Your task to perform on an android device: toggle pop-ups in chrome Image 0: 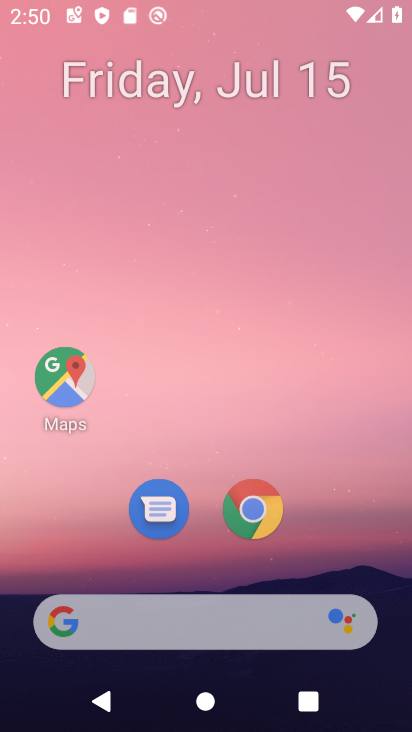
Step 0: press home button
Your task to perform on an android device: toggle pop-ups in chrome Image 1: 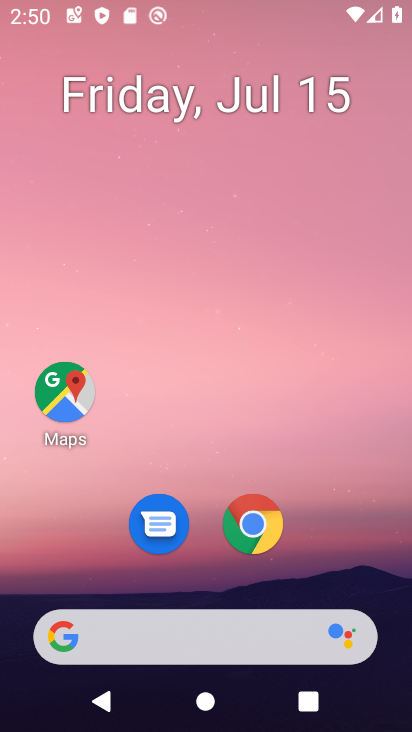
Step 1: press home button
Your task to perform on an android device: toggle pop-ups in chrome Image 2: 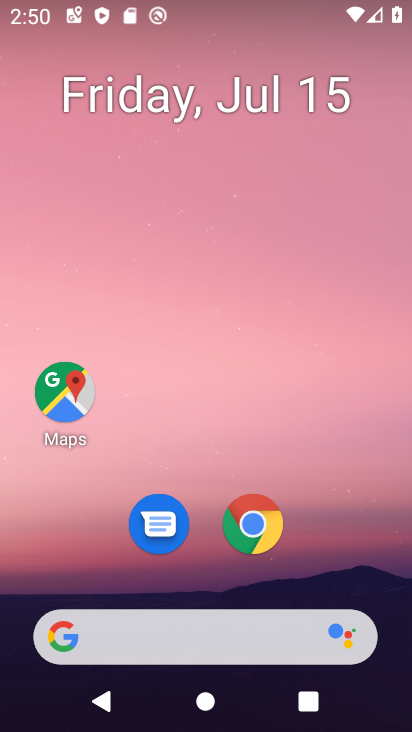
Step 2: click (248, 524)
Your task to perform on an android device: toggle pop-ups in chrome Image 3: 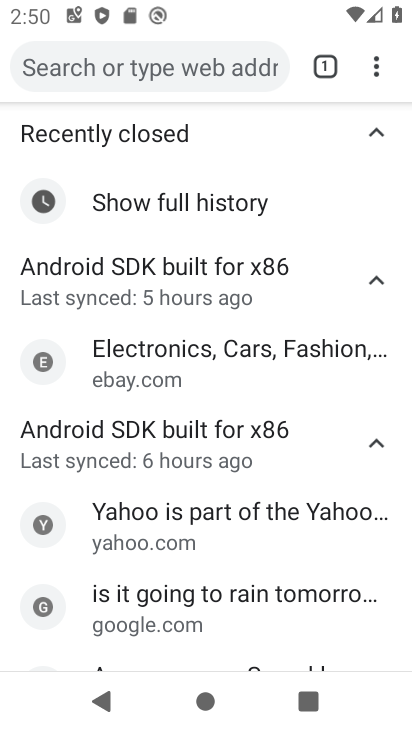
Step 3: drag from (373, 66) to (172, 562)
Your task to perform on an android device: toggle pop-ups in chrome Image 4: 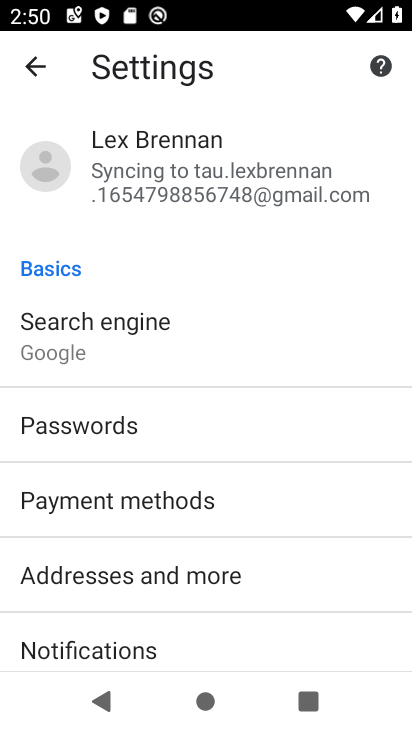
Step 4: drag from (202, 618) to (344, 128)
Your task to perform on an android device: toggle pop-ups in chrome Image 5: 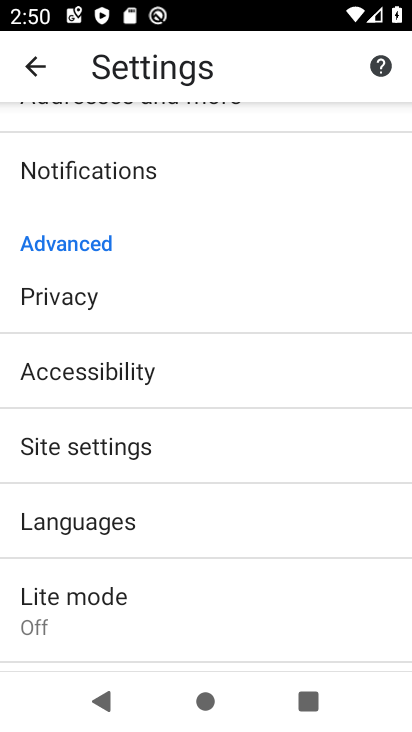
Step 5: click (123, 450)
Your task to perform on an android device: toggle pop-ups in chrome Image 6: 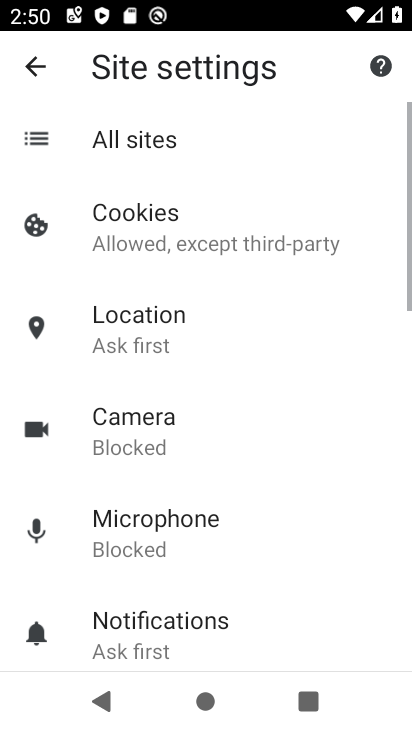
Step 6: drag from (226, 591) to (315, 124)
Your task to perform on an android device: toggle pop-ups in chrome Image 7: 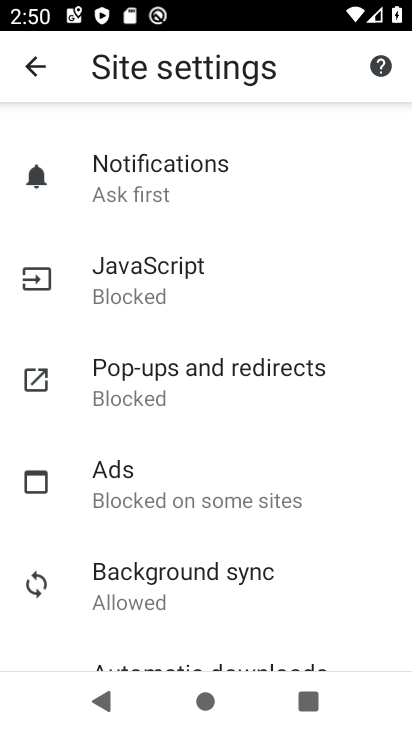
Step 7: click (171, 377)
Your task to perform on an android device: toggle pop-ups in chrome Image 8: 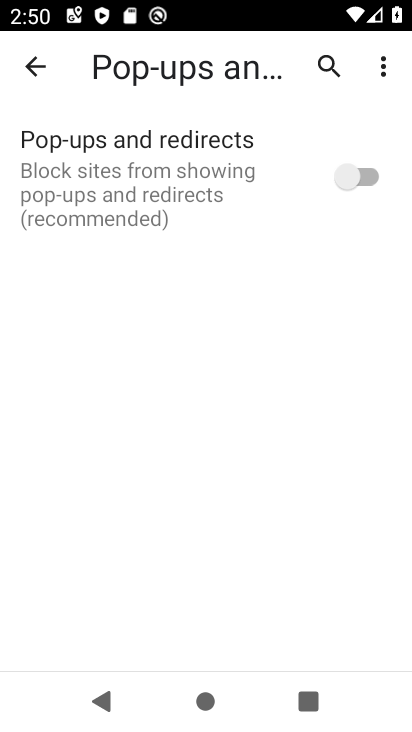
Step 8: click (370, 176)
Your task to perform on an android device: toggle pop-ups in chrome Image 9: 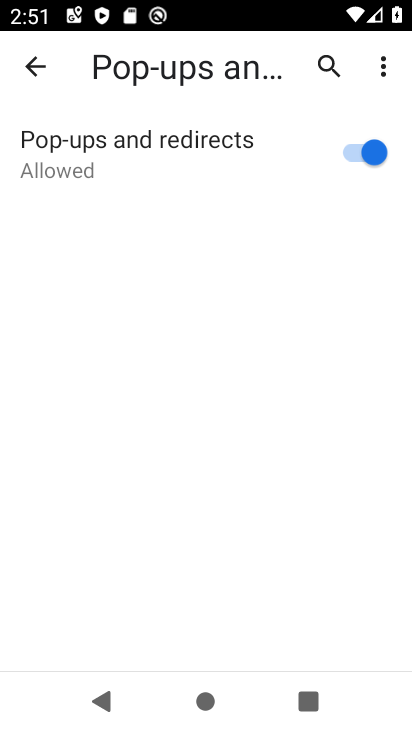
Step 9: task complete